Your task to perform on an android device: toggle data saver in the chrome app Image 0: 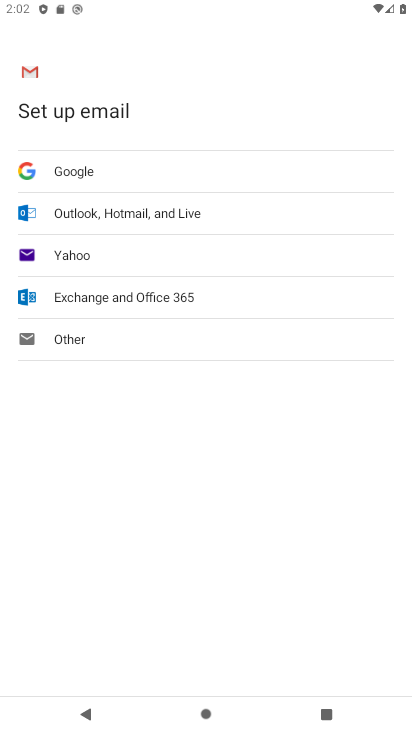
Step 0: press home button
Your task to perform on an android device: toggle data saver in the chrome app Image 1: 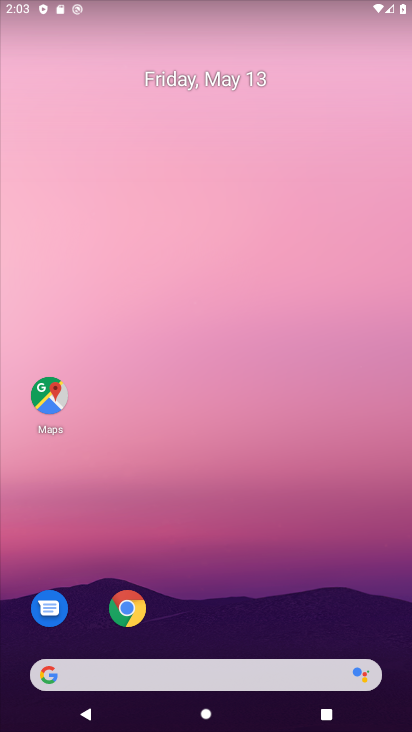
Step 1: click (133, 627)
Your task to perform on an android device: toggle data saver in the chrome app Image 2: 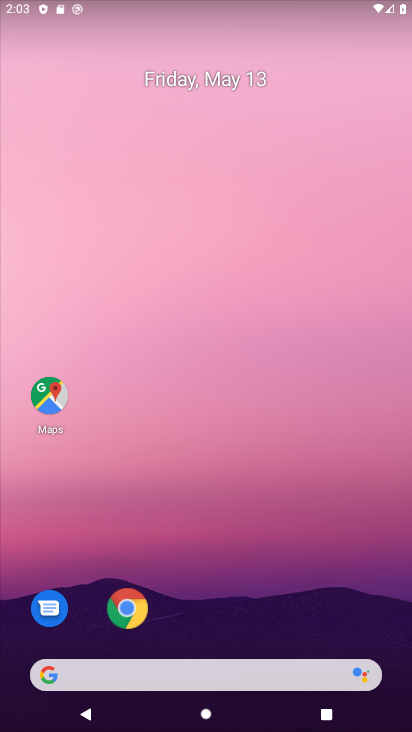
Step 2: click (133, 627)
Your task to perform on an android device: toggle data saver in the chrome app Image 3: 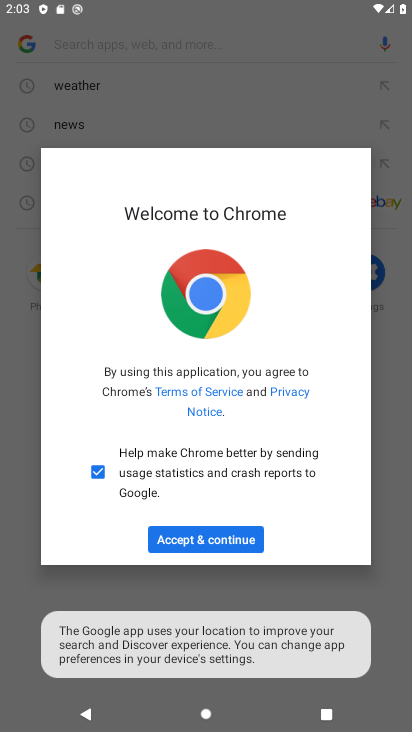
Step 3: click (202, 537)
Your task to perform on an android device: toggle data saver in the chrome app Image 4: 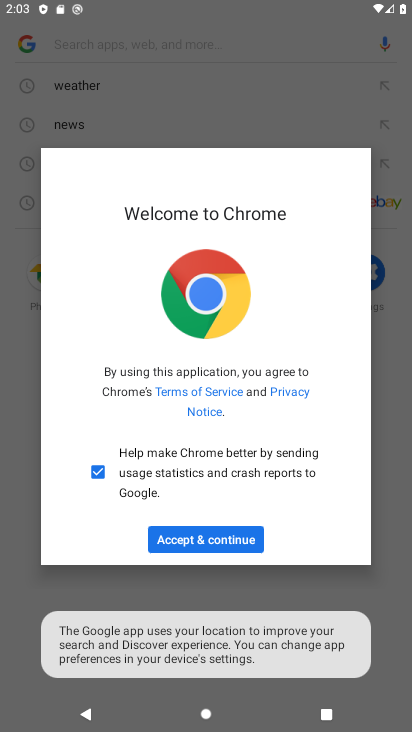
Step 4: click (202, 537)
Your task to perform on an android device: toggle data saver in the chrome app Image 5: 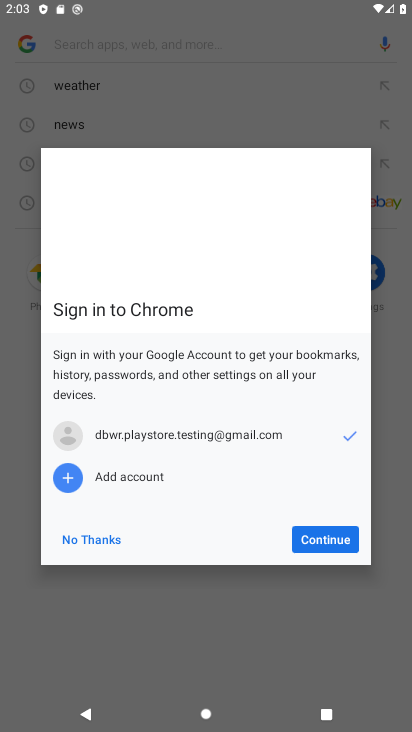
Step 5: click (319, 529)
Your task to perform on an android device: toggle data saver in the chrome app Image 6: 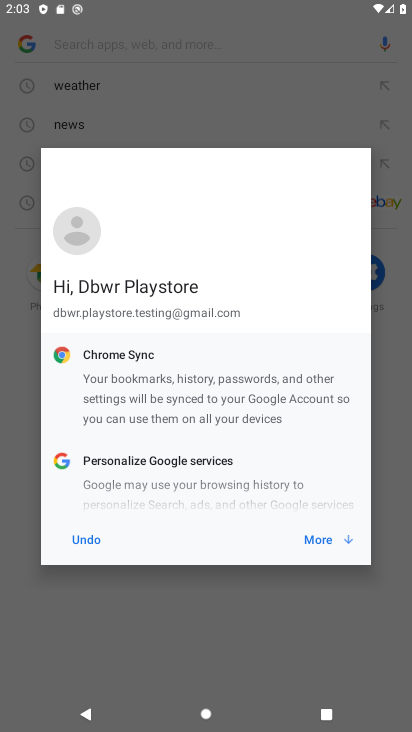
Step 6: click (315, 537)
Your task to perform on an android device: toggle data saver in the chrome app Image 7: 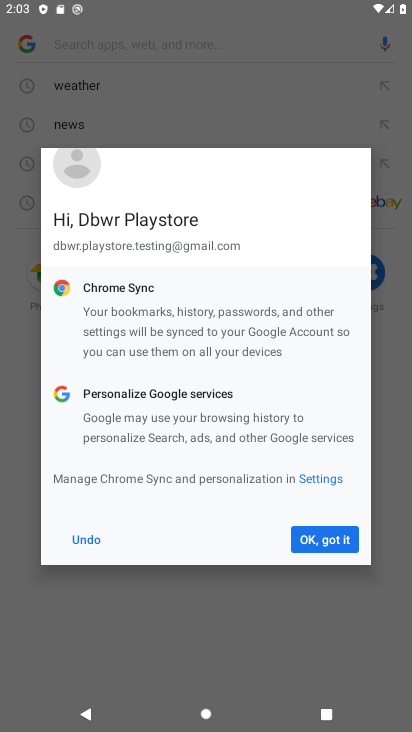
Step 7: click (315, 537)
Your task to perform on an android device: toggle data saver in the chrome app Image 8: 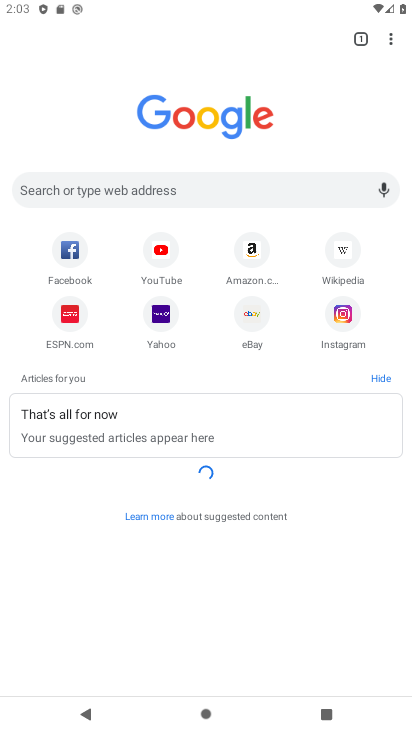
Step 8: drag from (393, 35) to (256, 333)
Your task to perform on an android device: toggle data saver in the chrome app Image 9: 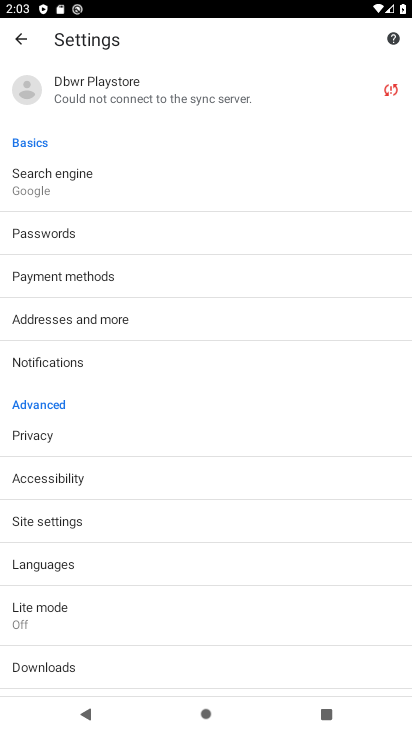
Step 9: click (61, 610)
Your task to perform on an android device: toggle data saver in the chrome app Image 10: 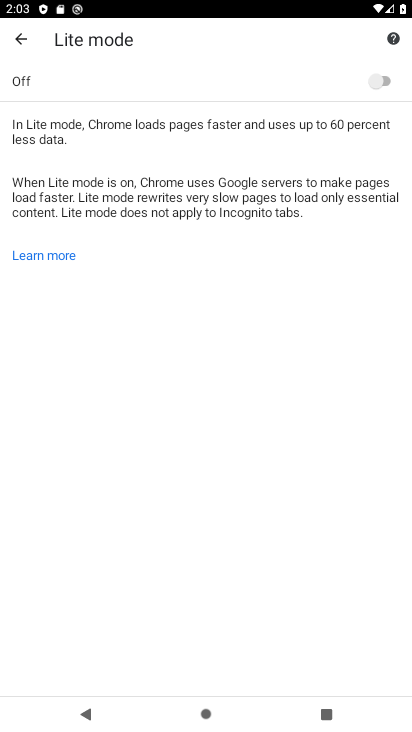
Step 10: click (385, 82)
Your task to perform on an android device: toggle data saver in the chrome app Image 11: 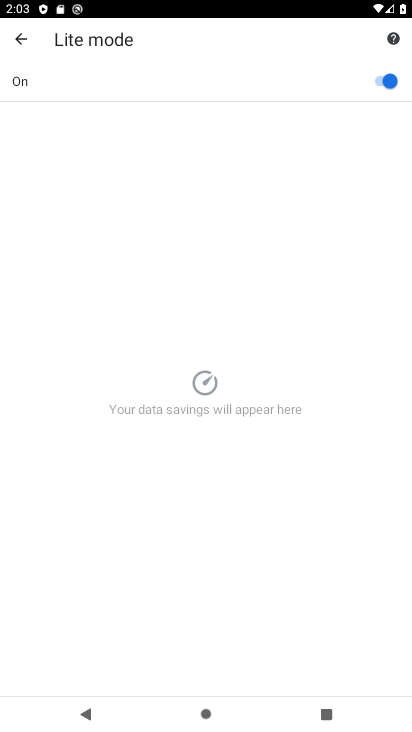
Step 11: task complete